Your task to perform on an android device: Open Yahoo.com Image 0: 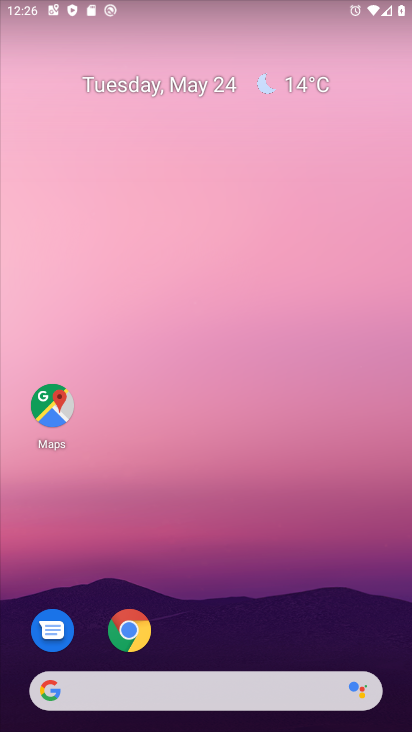
Step 0: drag from (339, 607) to (408, 109)
Your task to perform on an android device: Open Yahoo.com Image 1: 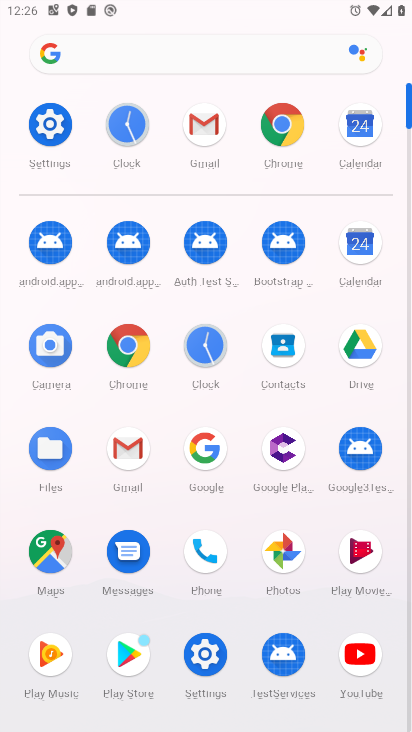
Step 1: click (133, 360)
Your task to perform on an android device: Open Yahoo.com Image 2: 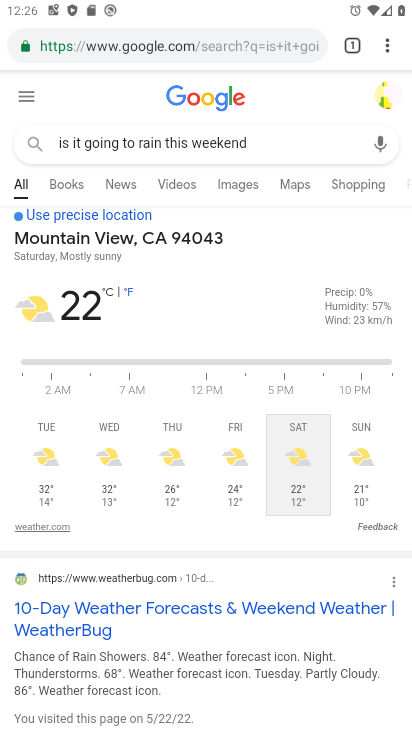
Step 2: click (232, 46)
Your task to perform on an android device: Open Yahoo.com Image 3: 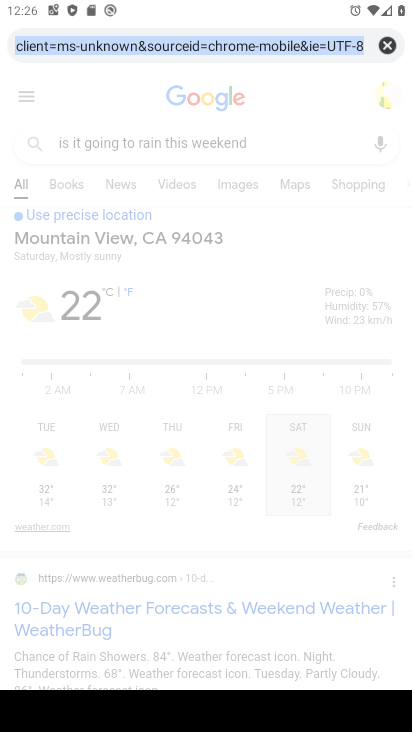
Step 3: click (379, 44)
Your task to perform on an android device: Open Yahoo.com Image 4: 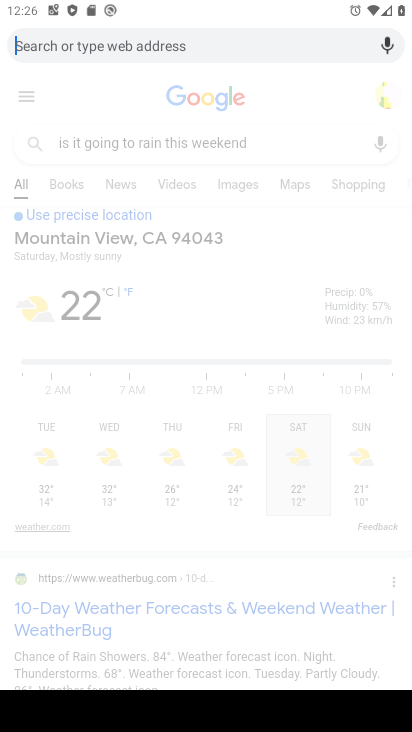
Step 4: type "yahoo.com"
Your task to perform on an android device: Open Yahoo.com Image 5: 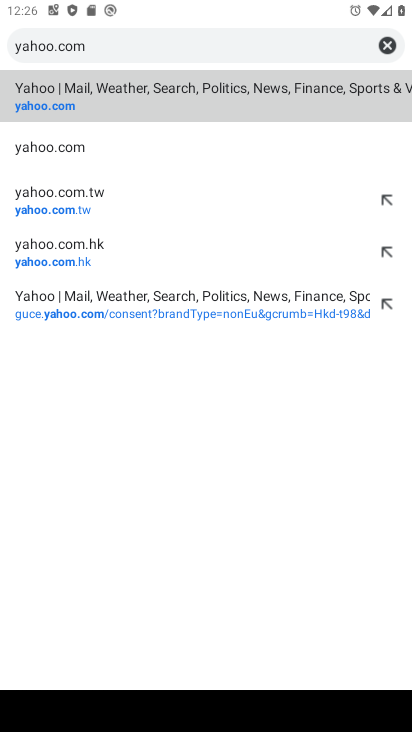
Step 5: click (128, 112)
Your task to perform on an android device: Open Yahoo.com Image 6: 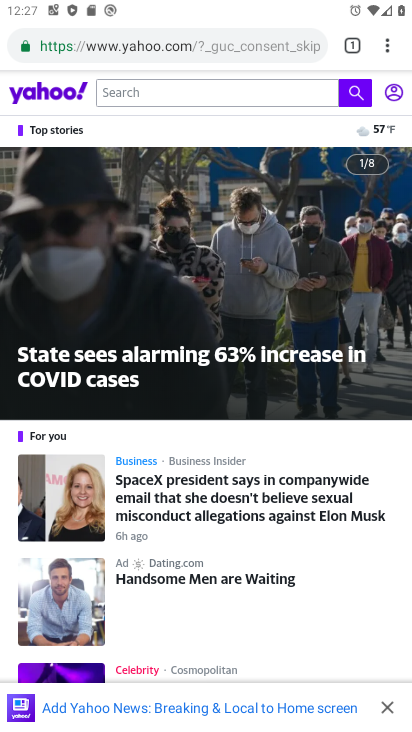
Step 6: task complete